Your task to perform on an android device: Go to Reddit.com Image 0: 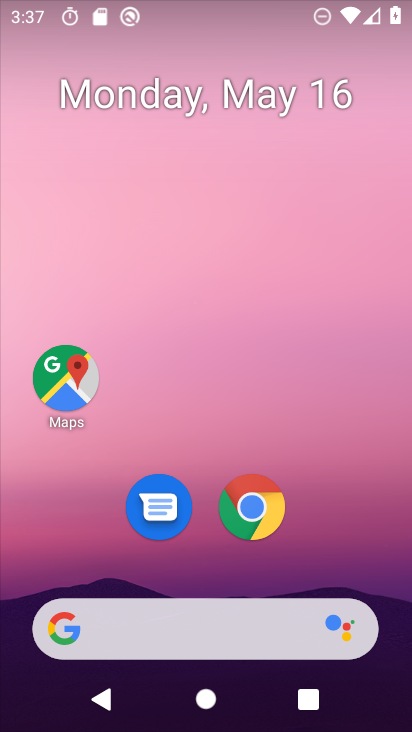
Step 0: drag from (357, 539) to (402, 39)
Your task to perform on an android device: Go to Reddit.com Image 1: 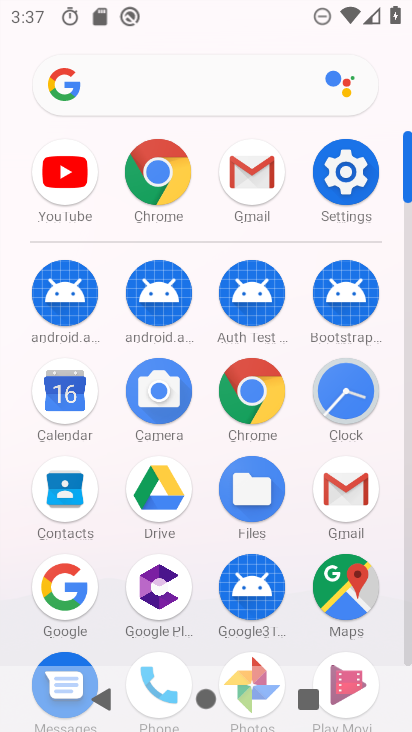
Step 1: click (148, 198)
Your task to perform on an android device: Go to Reddit.com Image 2: 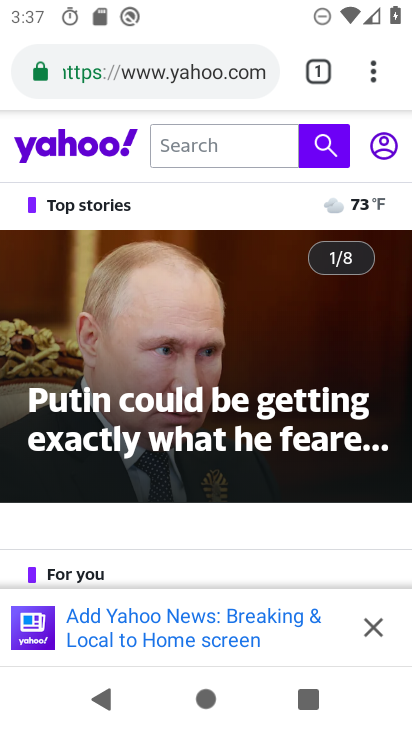
Step 2: click (205, 66)
Your task to perform on an android device: Go to Reddit.com Image 3: 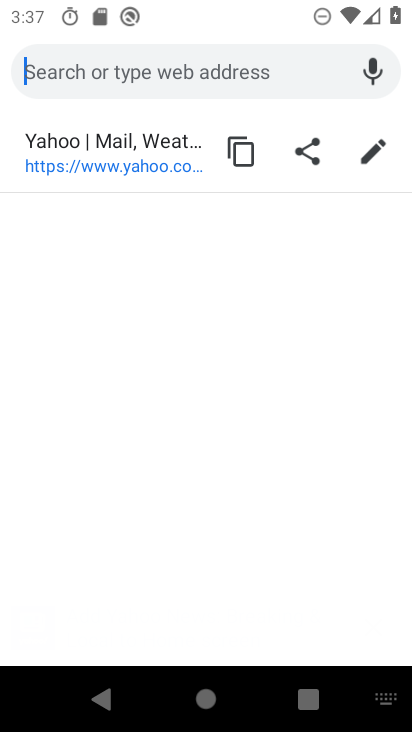
Step 3: type "reddit"
Your task to perform on an android device: Go to Reddit.com Image 4: 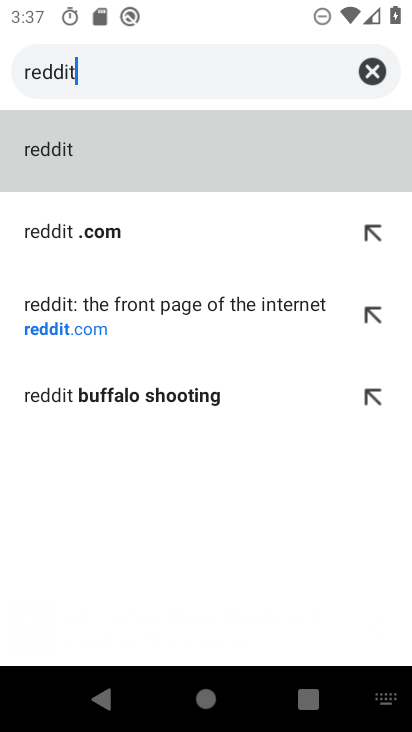
Step 4: click (46, 234)
Your task to perform on an android device: Go to Reddit.com Image 5: 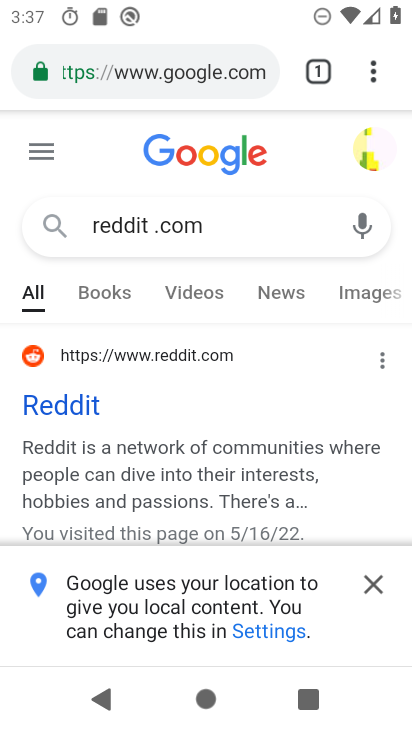
Step 5: click (66, 400)
Your task to perform on an android device: Go to Reddit.com Image 6: 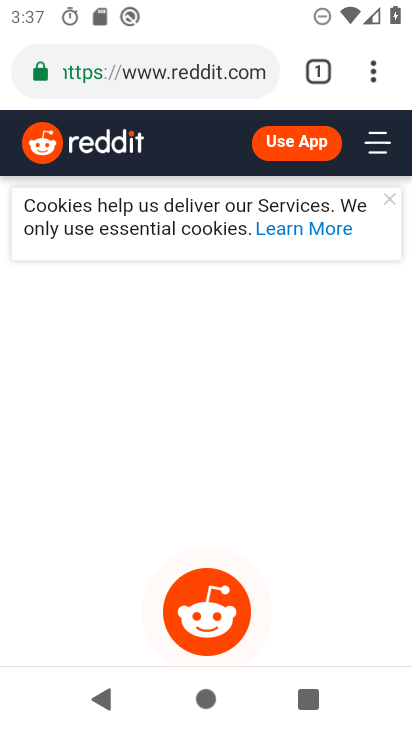
Step 6: task complete